Your task to perform on an android device: set the stopwatch Image 0: 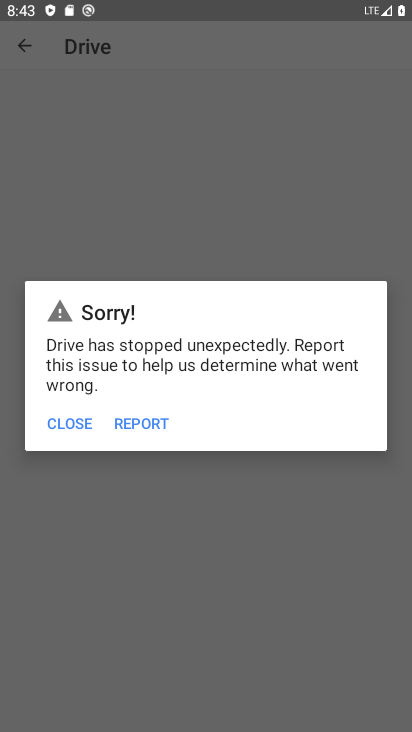
Step 0: press home button
Your task to perform on an android device: set the stopwatch Image 1: 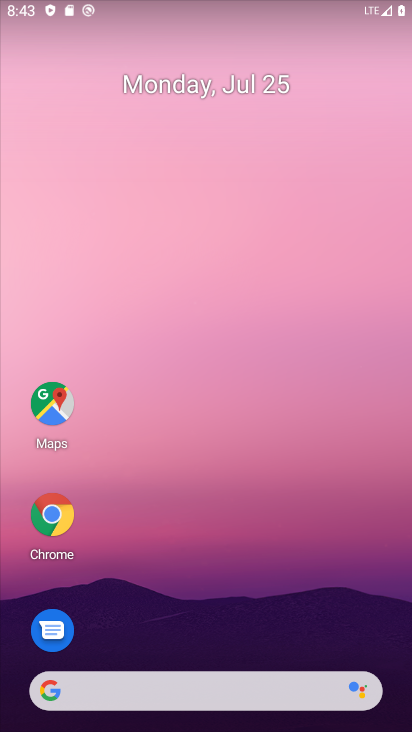
Step 1: drag from (29, 672) to (150, 319)
Your task to perform on an android device: set the stopwatch Image 2: 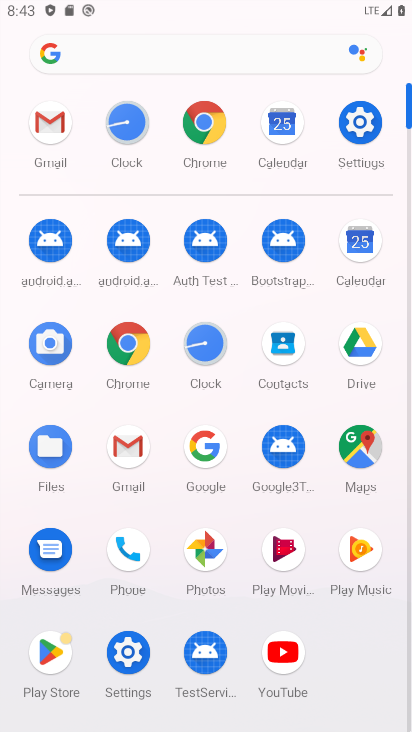
Step 2: click (204, 360)
Your task to perform on an android device: set the stopwatch Image 3: 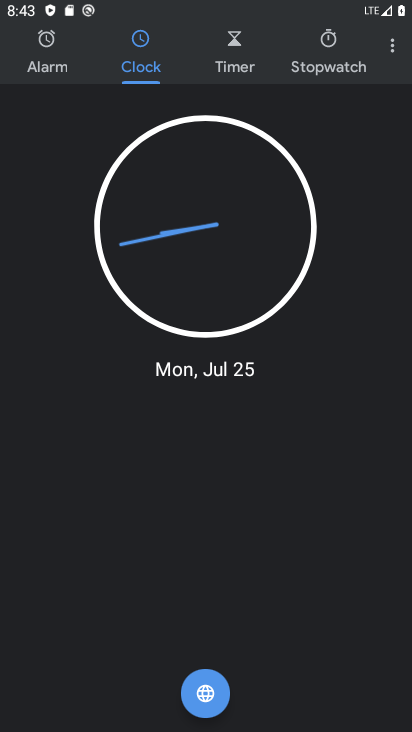
Step 3: click (313, 59)
Your task to perform on an android device: set the stopwatch Image 4: 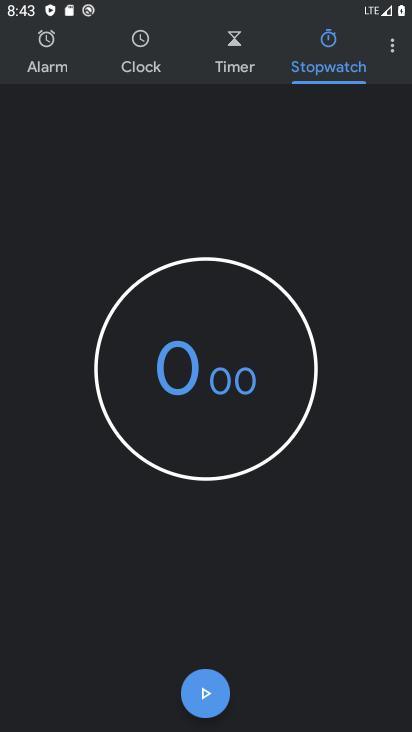
Step 4: click (187, 330)
Your task to perform on an android device: set the stopwatch Image 5: 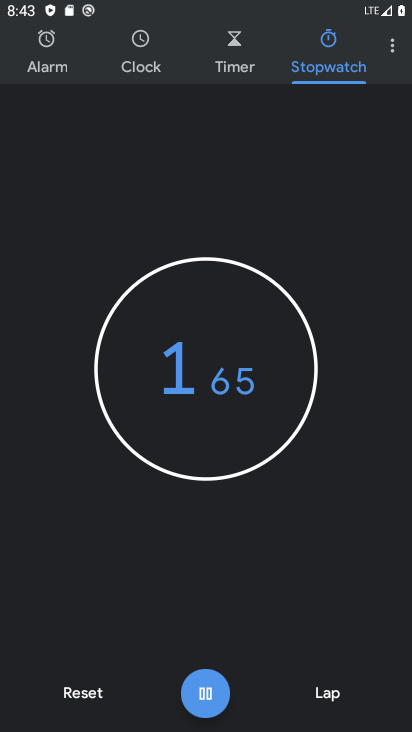
Step 5: click (209, 704)
Your task to perform on an android device: set the stopwatch Image 6: 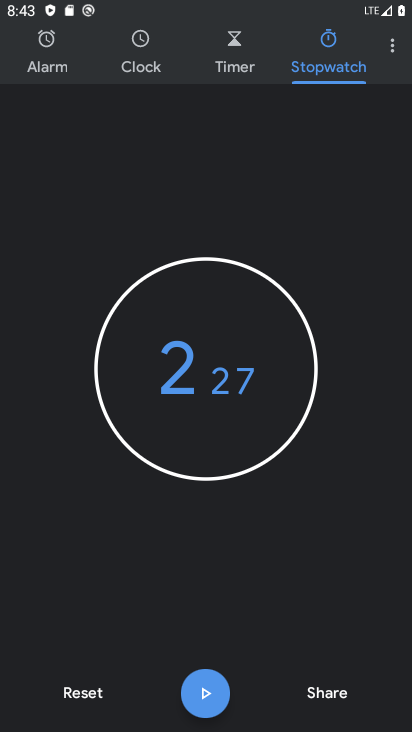
Step 6: task complete